Your task to perform on an android device: Show me recent news Image 0: 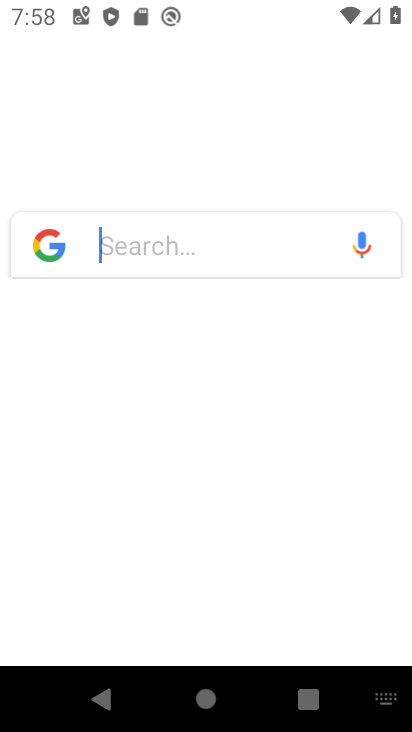
Step 0: press home button
Your task to perform on an android device: Show me recent news Image 1: 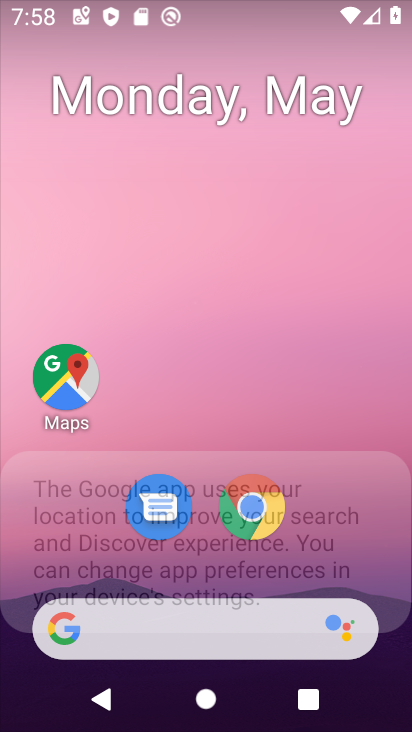
Step 1: task complete